Your task to perform on an android device: turn on notifications settings in the gmail app Image 0: 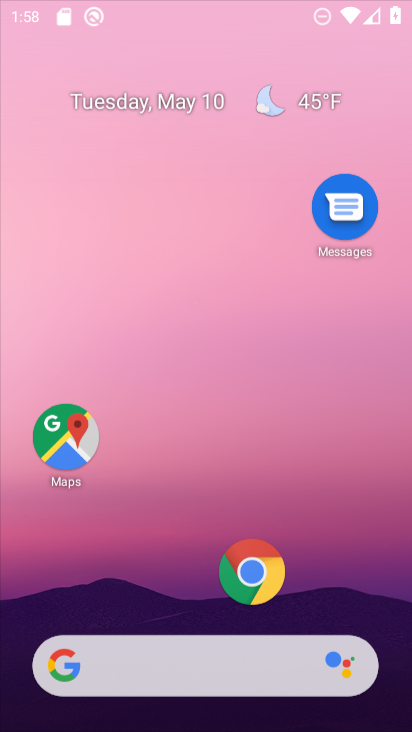
Step 0: drag from (304, 132) to (198, 121)
Your task to perform on an android device: turn on notifications settings in the gmail app Image 1: 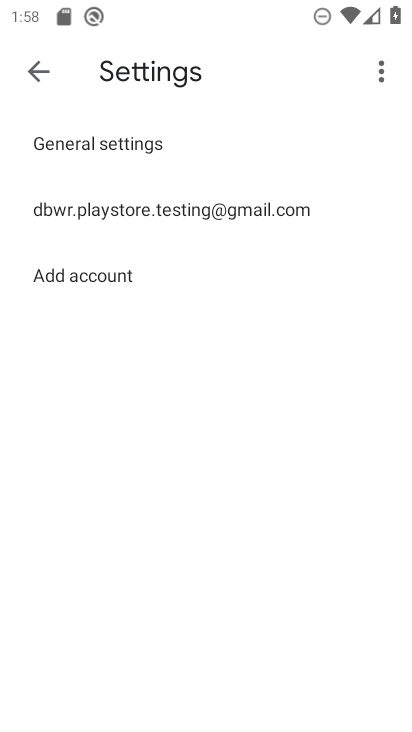
Step 1: press home button
Your task to perform on an android device: turn on notifications settings in the gmail app Image 2: 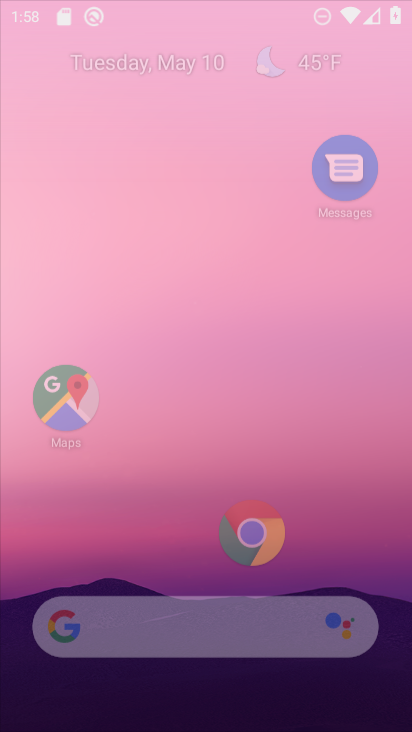
Step 2: press home button
Your task to perform on an android device: turn on notifications settings in the gmail app Image 3: 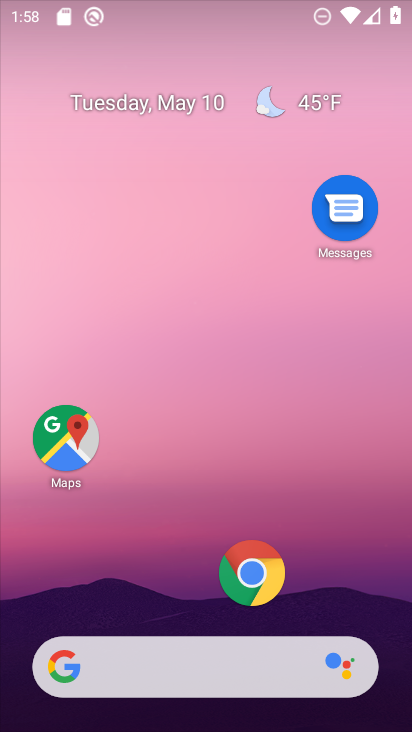
Step 3: drag from (184, 597) to (227, 192)
Your task to perform on an android device: turn on notifications settings in the gmail app Image 4: 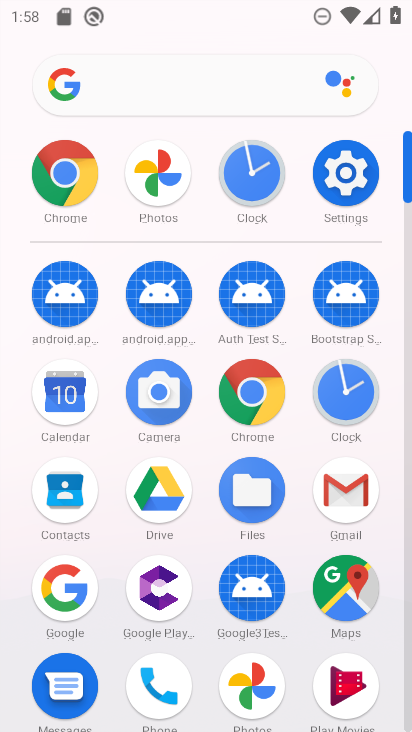
Step 4: click (347, 486)
Your task to perform on an android device: turn on notifications settings in the gmail app Image 5: 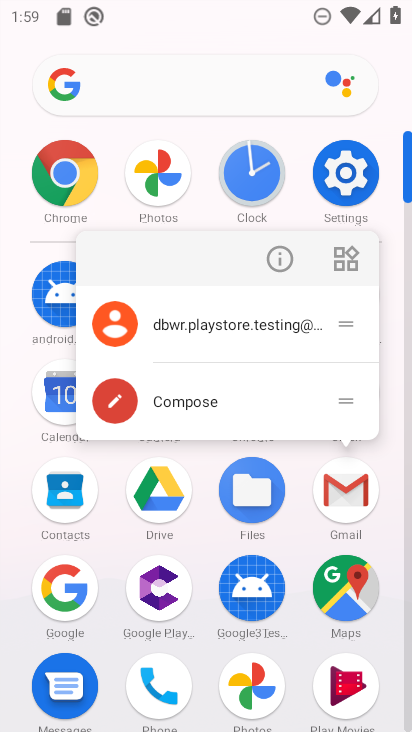
Step 5: click (270, 271)
Your task to perform on an android device: turn on notifications settings in the gmail app Image 6: 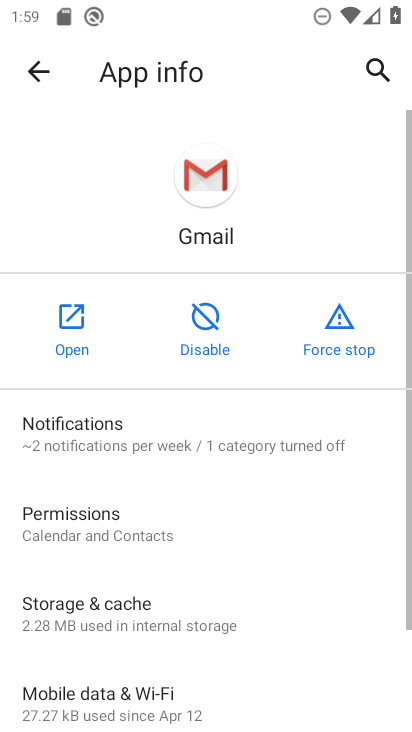
Step 6: click (82, 325)
Your task to perform on an android device: turn on notifications settings in the gmail app Image 7: 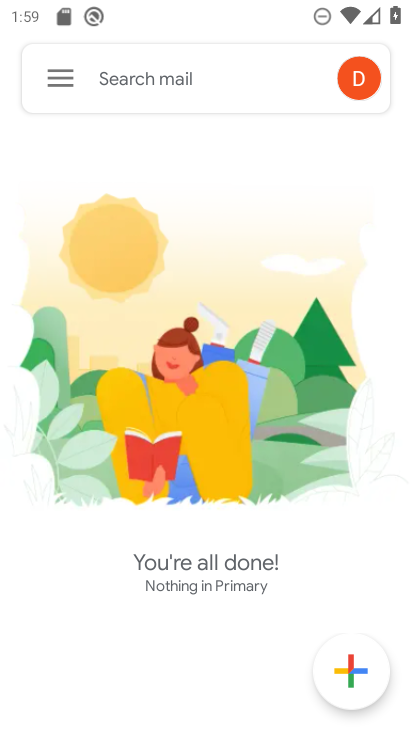
Step 7: drag from (142, 555) to (182, 252)
Your task to perform on an android device: turn on notifications settings in the gmail app Image 8: 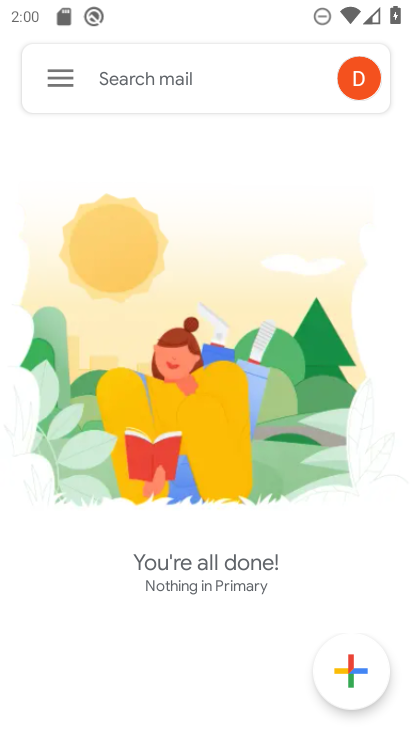
Step 8: click (67, 81)
Your task to perform on an android device: turn on notifications settings in the gmail app Image 9: 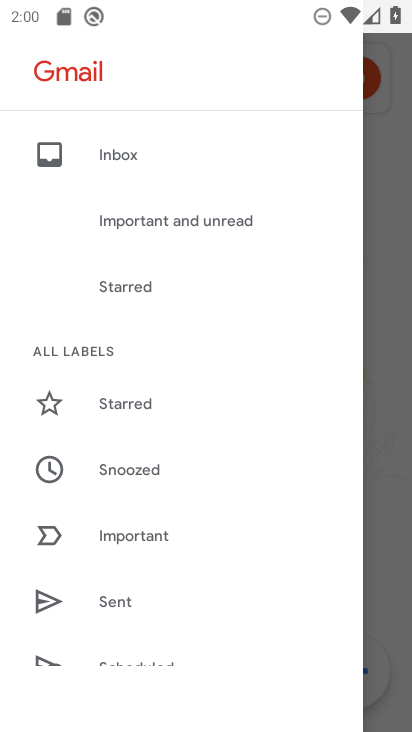
Step 9: drag from (146, 584) to (211, 323)
Your task to perform on an android device: turn on notifications settings in the gmail app Image 10: 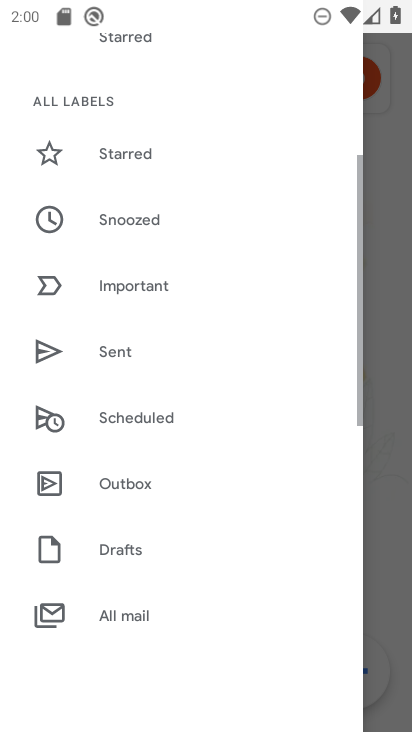
Step 10: drag from (185, 515) to (235, 236)
Your task to perform on an android device: turn on notifications settings in the gmail app Image 11: 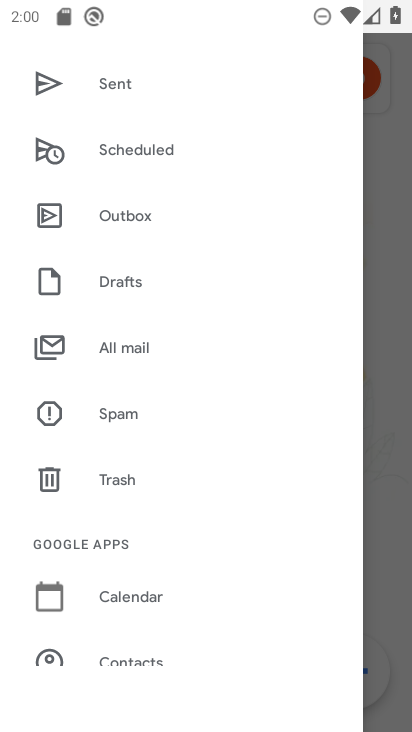
Step 11: drag from (150, 613) to (204, 347)
Your task to perform on an android device: turn on notifications settings in the gmail app Image 12: 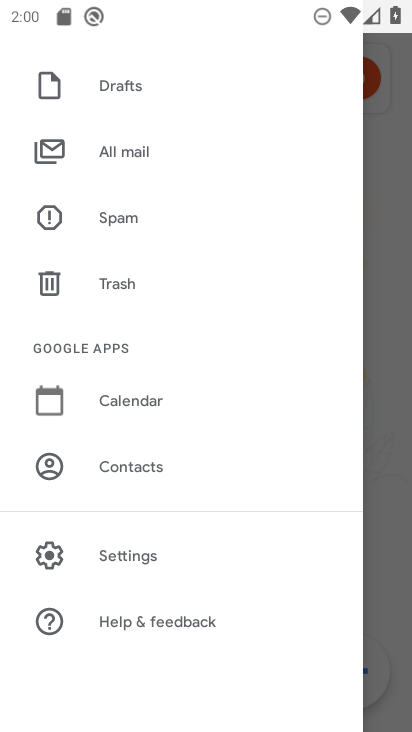
Step 12: click (108, 559)
Your task to perform on an android device: turn on notifications settings in the gmail app Image 13: 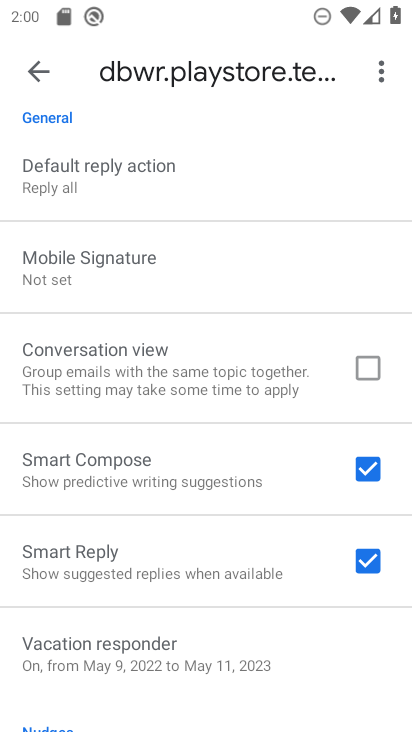
Step 13: drag from (214, 287) to (233, 697)
Your task to perform on an android device: turn on notifications settings in the gmail app Image 14: 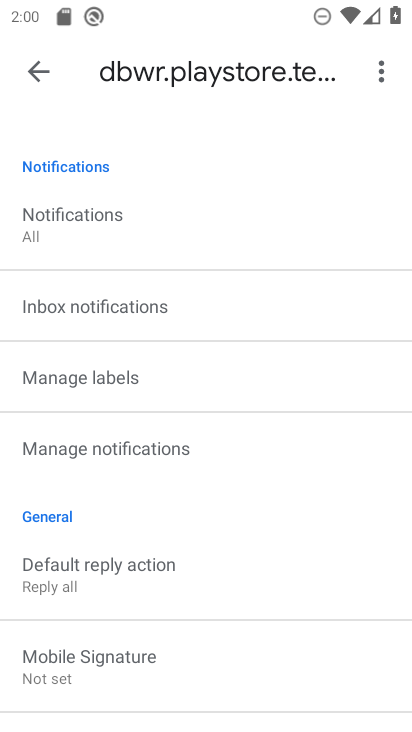
Step 14: click (186, 433)
Your task to perform on an android device: turn on notifications settings in the gmail app Image 15: 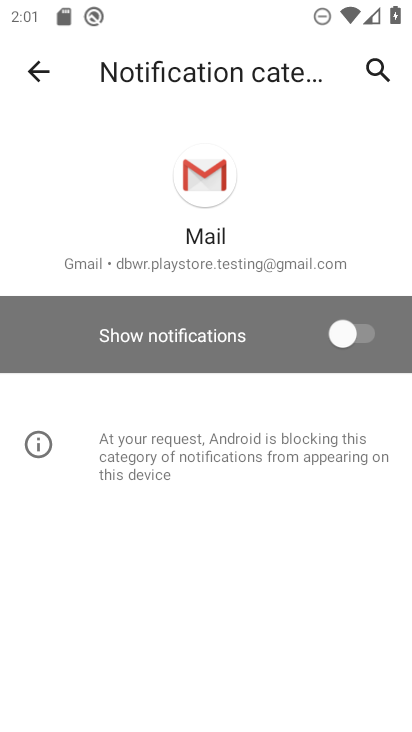
Step 15: drag from (232, 469) to (284, 278)
Your task to perform on an android device: turn on notifications settings in the gmail app Image 16: 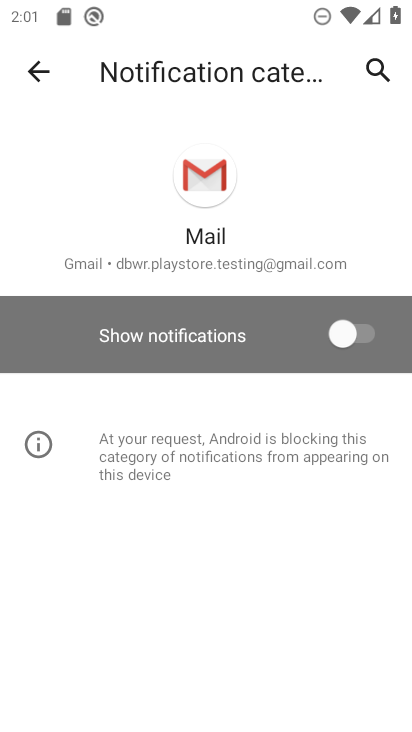
Step 16: click (297, 310)
Your task to perform on an android device: turn on notifications settings in the gmail app Image 17: 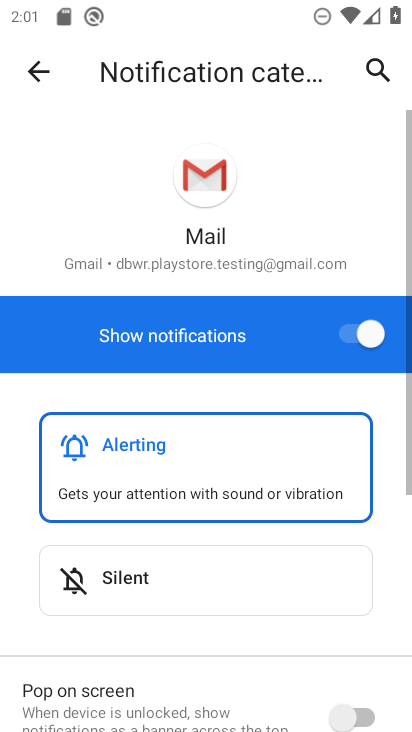
Step 17: task complete